Your task to perform on an android device: clear history in the chrome app Image 0: 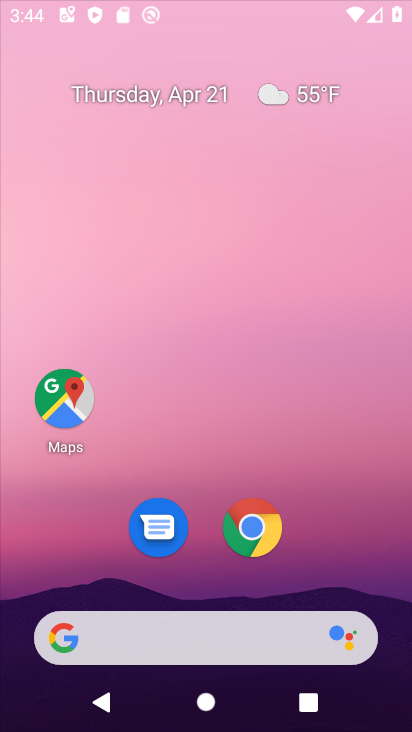
Step 0: drag from (341, 341) to (309, 204)
Your task to perform on an android device: clear history in the chrome app Image 1: 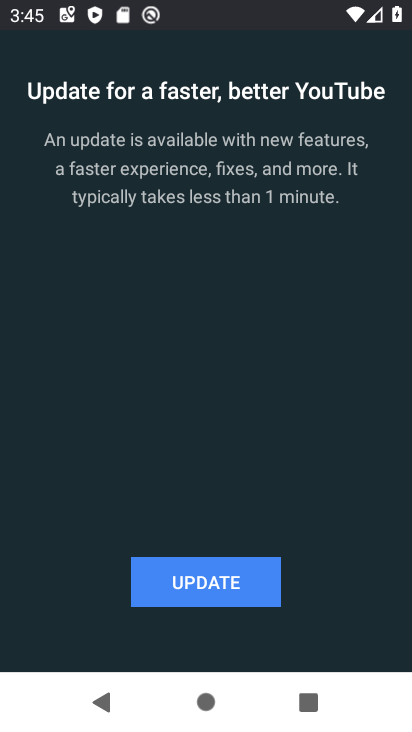
Step 1: press home button
Your task to perform on an android device: clear history in the chrome app Image 2: 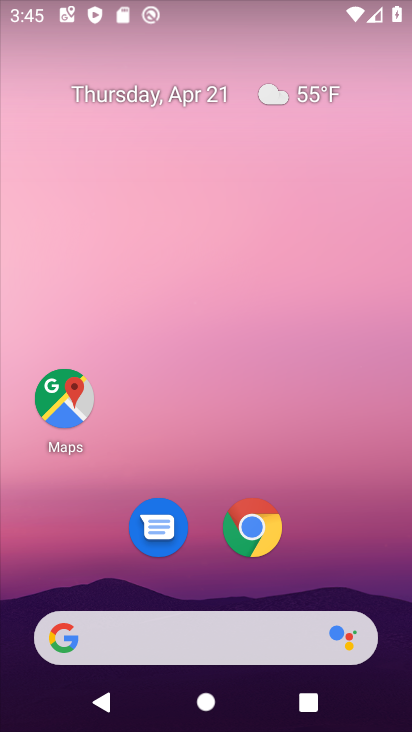
Step 2: click (261, 523)
Your task to perform on an android device: clear history in the chrome app Image 3: 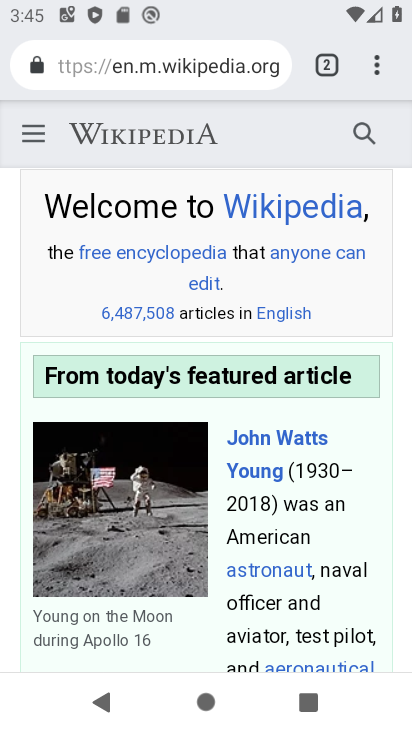
Step 3: click (382, 74)
Your task to perform on an android device: clear history in the chrome app Image 4: 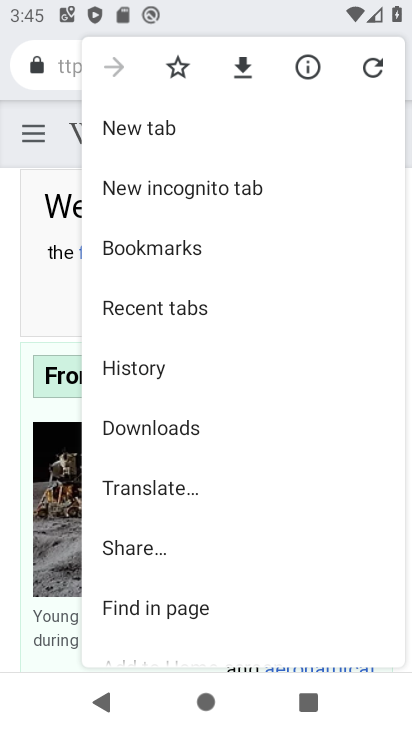
Step 4: click (217, 381)
Your task to perform on an android device: clear history in the chrome app Image 5: 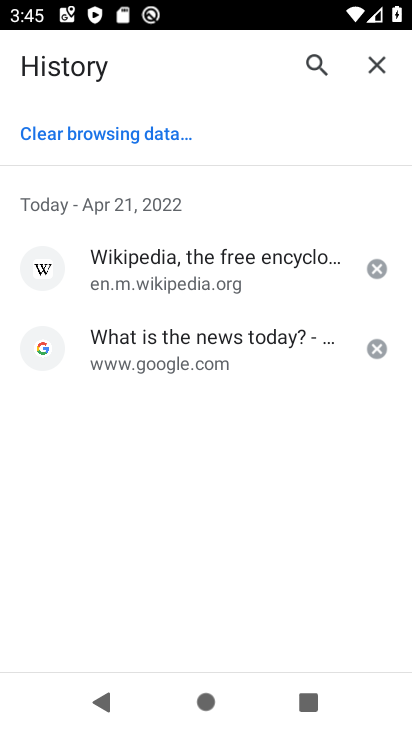
Step 5: click (155, 134)
Your task to perform on an android device: clear history in the chrome app Image 6: 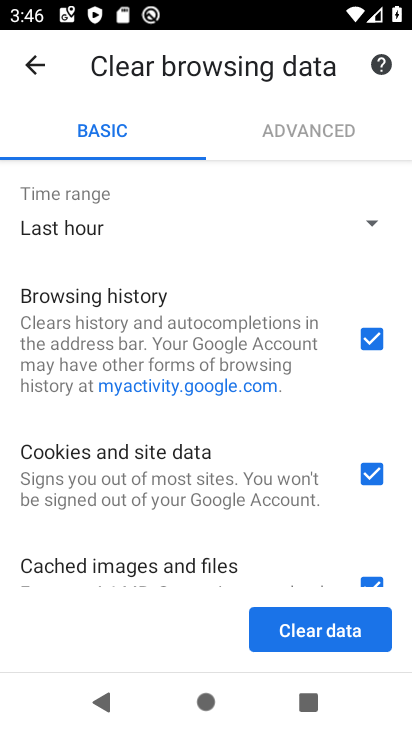
Step 6: click (352, 631)
Your task to perform on an android device: clear history in the chrome app Image 7: 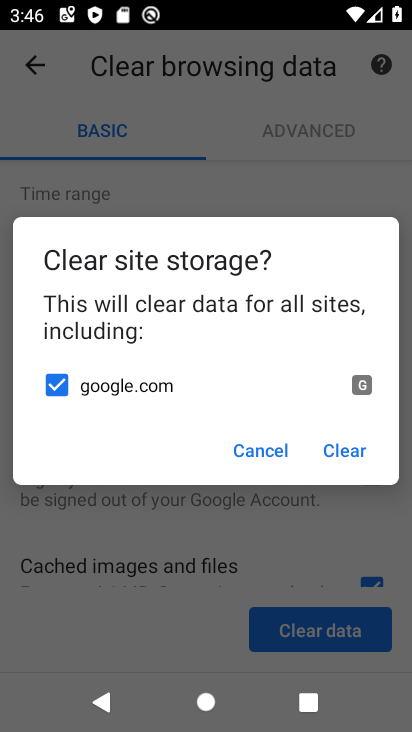
Step 7: click (343, 442)
Your task to perform on an android device: clear history in the chrome app Image 8: 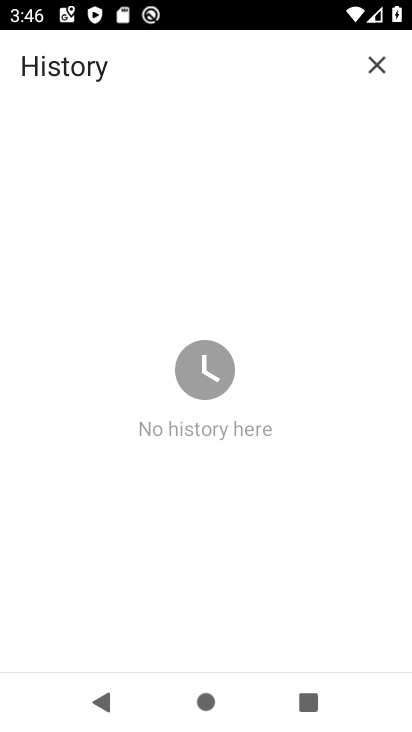
Step 8: task complete